Your task to perform on an android device: turn off location Image 0: 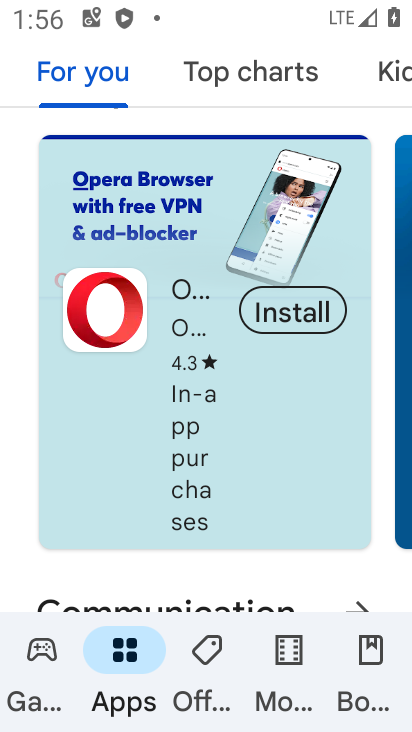
Step 0: press home button
Your task to perform on an android device: turn off location Image 1: 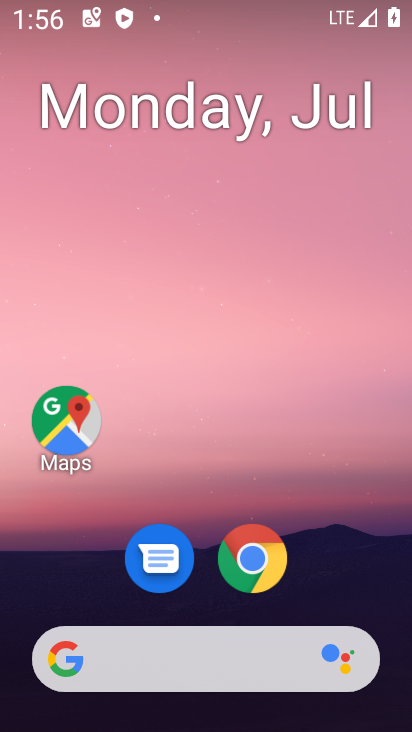
Step 1: drag from (356, 544) to (353, 103)
Your task to perform on an android device: turn off location Image 2: 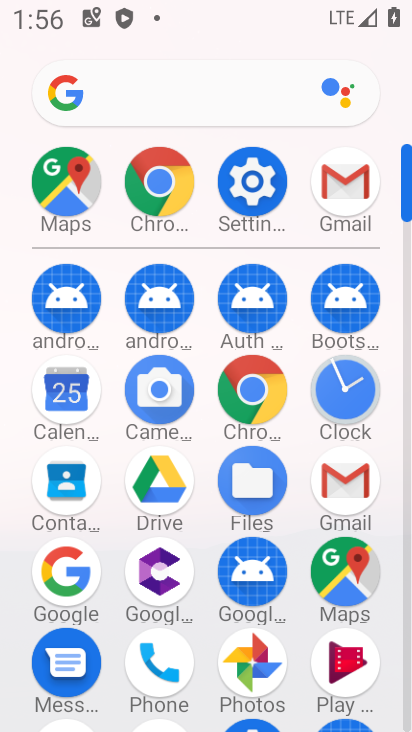
Step 2: click (250, 196)
Your task to perform on an android device: turn off location Image 3: 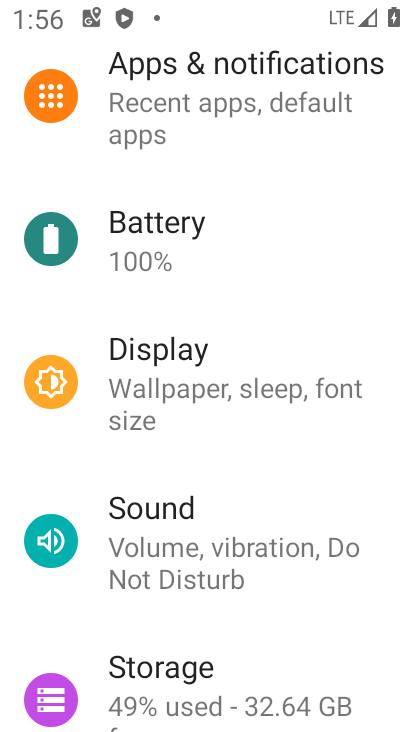
Step 3: drag from (346, 202) to (343, 405)
Your task to perform on an android device: turn off location Image 4: 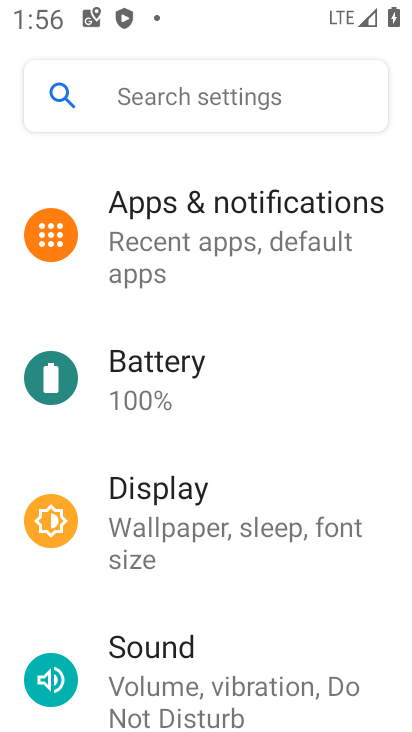
Step 4: drag from (361, 265) to (352, 450)
Your task to perform on an android device: turn off location Image 5: 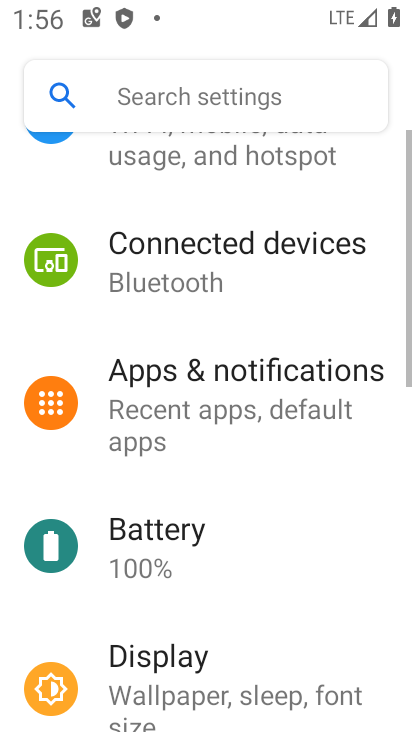
Step 5: drag from (376, 175) to (381, 399)
Your task to perform on an android device: turn off location Image 6: 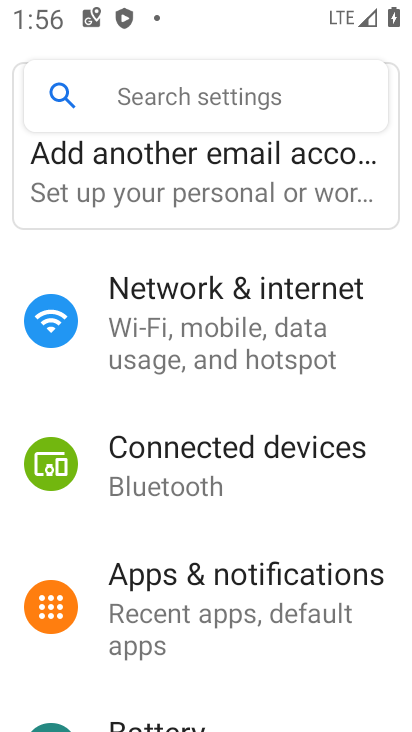
Step 6: drag from (366, 488) to (372, 369)
Your task to perform on an android device: turn off location Image 7: 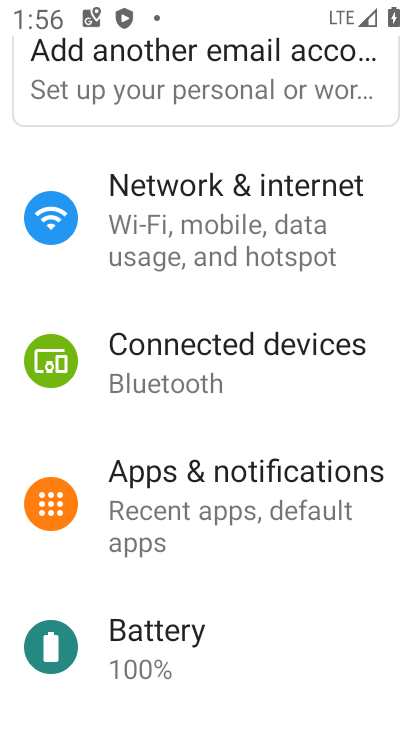
Step 7: drag from (349, 527) to (348, 413)
Your task to perform on an android device: turn off location Image 8: 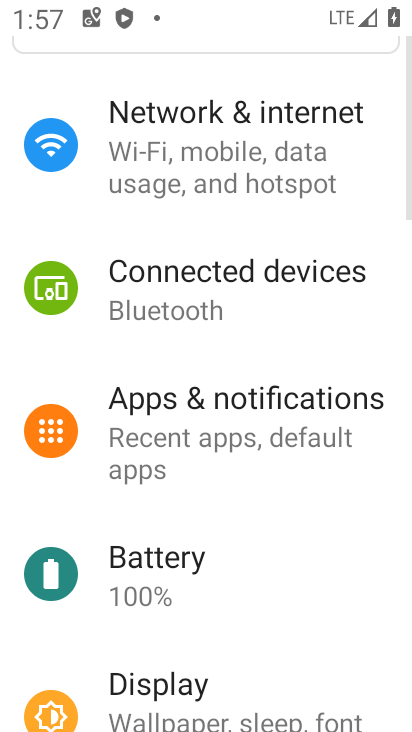
Step 8: drag from (329, 547) to (332, 453)
Your task to perform on an android device: turn off location Image 9: 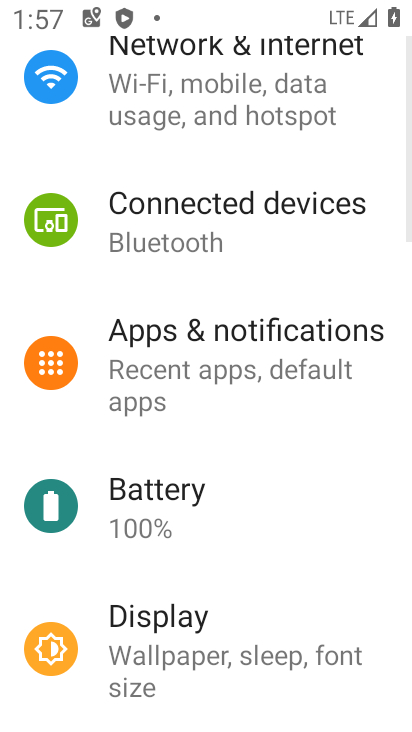
Step 9: drag from (305, 593) to (306, 465)
Your task to perform on an android device: turn off location Image 10: 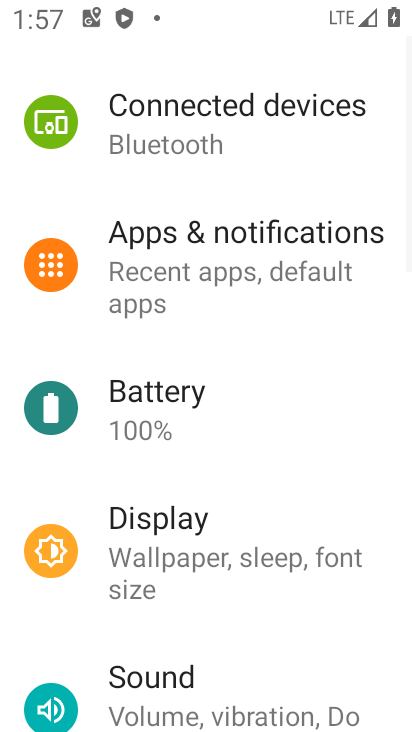
Step 10: drag from (272, 635) to (281, 513)
Your task to perform on an android device: turn off location Image 11: 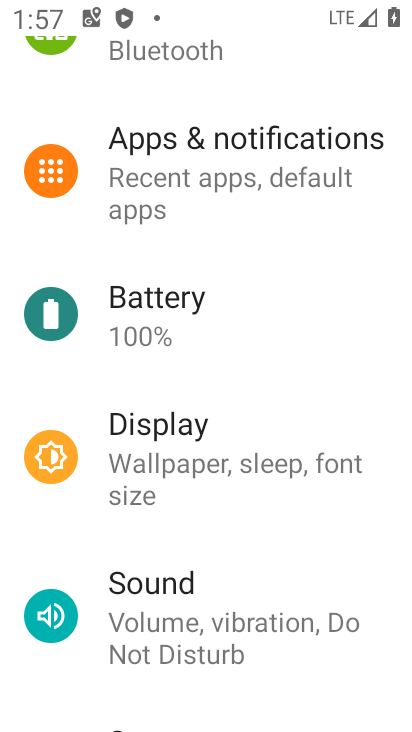
Step 11: drag from (280, 651) to (289, 510)
Your task to perform on an android device: turn off location Image 12: 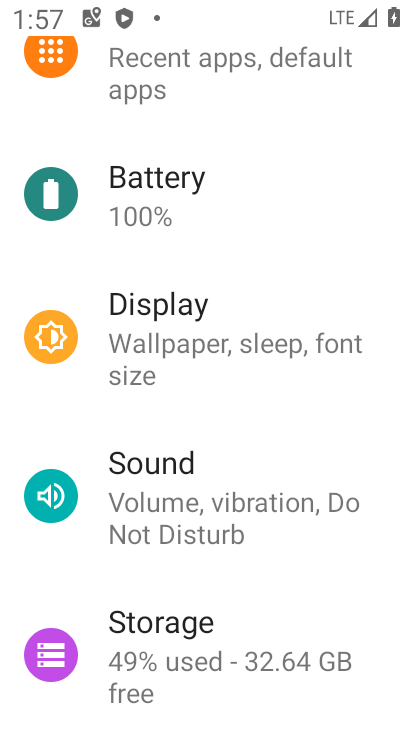
Step 12: drag from (292, 606) to (293, 427)
Your task to perform on an android device: turn off location Image 13: 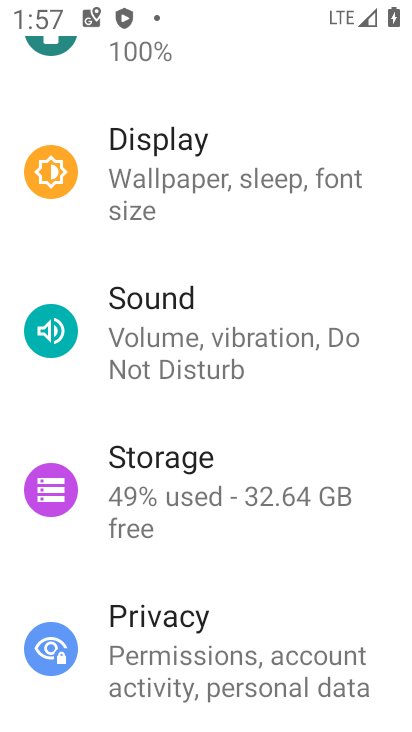
Step 13: drag from (287, 515) to (294, 281)
Your task to perform on an android device: turn off location Image 14: 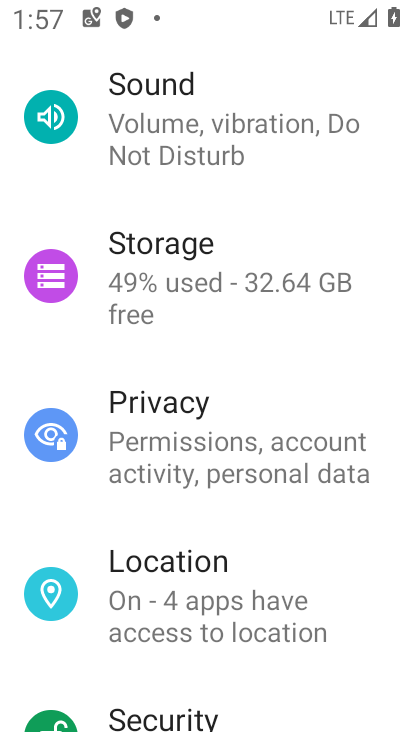
Step 14: click (301, 576)
Your task to perform on an android device: turn off location Image 15: 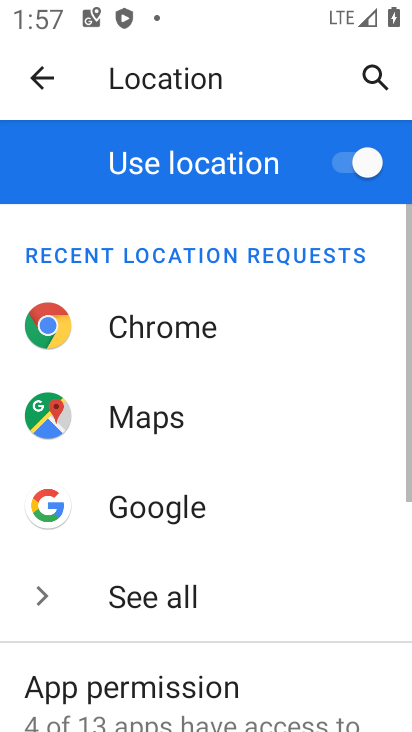
Step 15: drag from (301, 576) to (308, 411)
Your task to perform on an android device: turn off location Image 16: 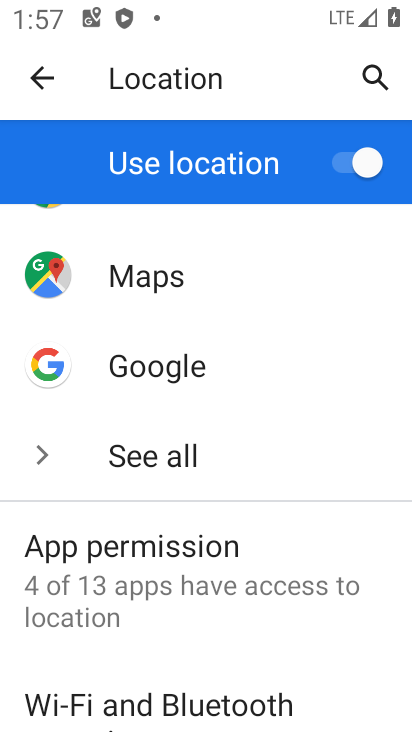
Step 16: click (362, 172)
Your task to perform on an android device: turn off location Image 17: 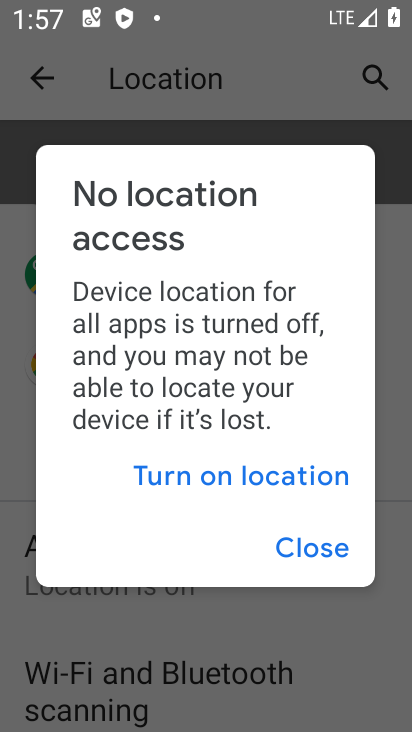
Step 17: task complete